Your task to perform on an android device: Go to Reddit.com Image 0: 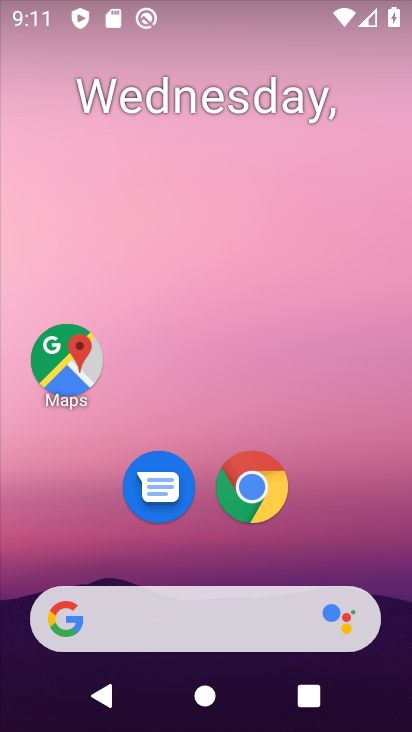
Step 0: click (244, 473)
Your task to perform on an android device: Go to Reddit.com Image 1: 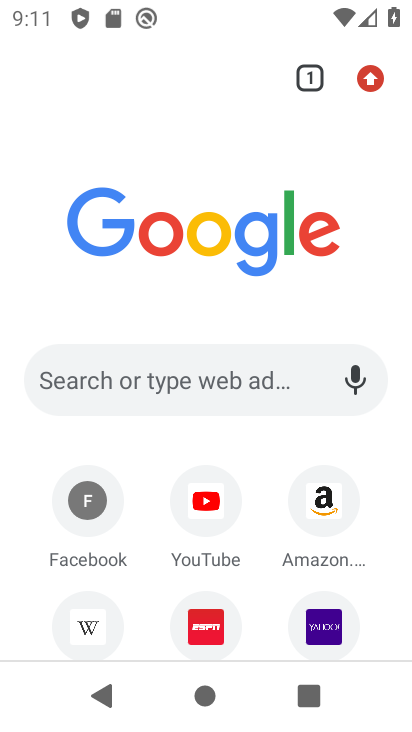
Step 1: drag from (344, 566) to (343, 292)
Your task to perform on an android device: Go to Reddit.com Image 2: 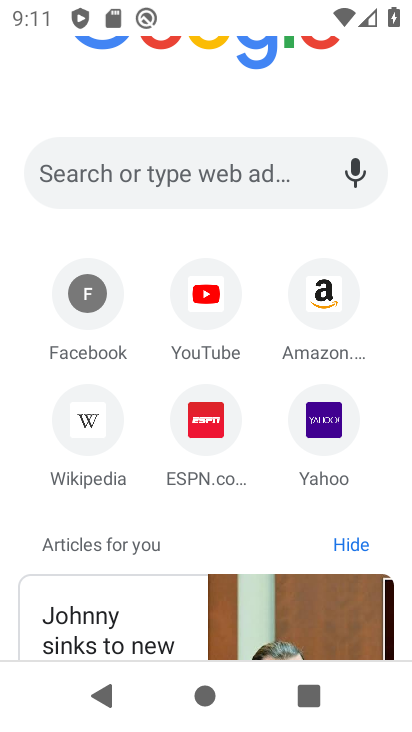
Step 2: click (250, 165)
Your task to perform on an android device: Go to Reddit.com Image 3: 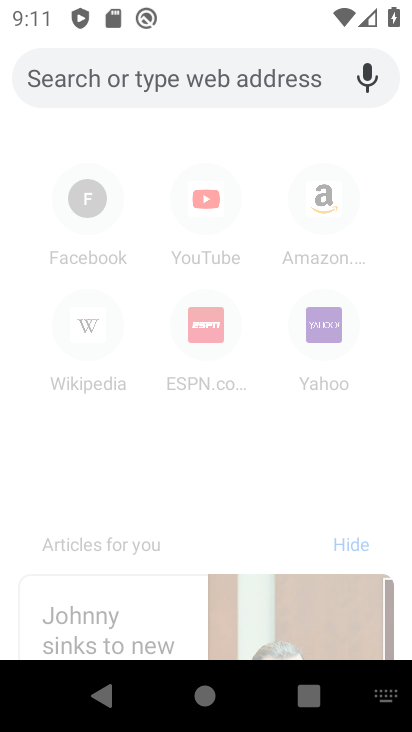
Step 3: type "Reddit.com"
Your task to perform on an android device: Go to Reddit.com Image 4: 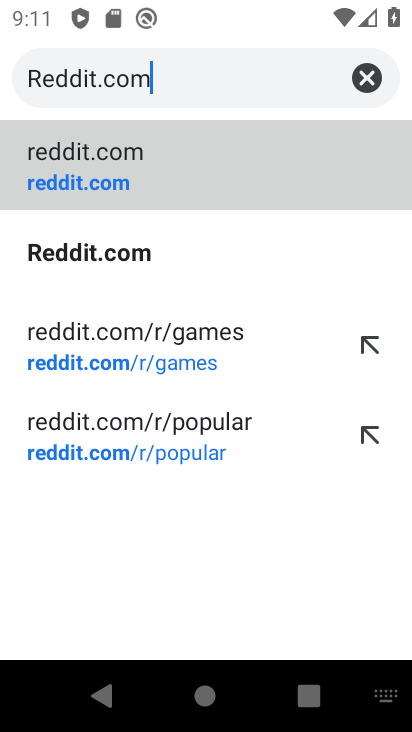
Step 4: click (50, 244)
Your task to perform on an android device: Go to Reddit.com Image 5: 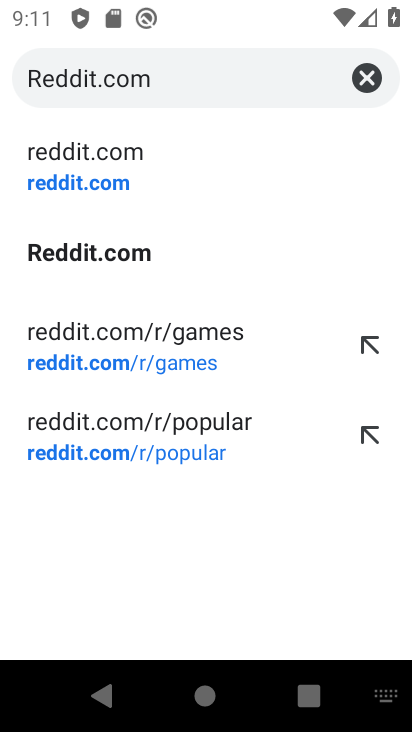
Step 5: click (100, 246)
Your task to perform on an android device: Go to Reddit.com Image 6: 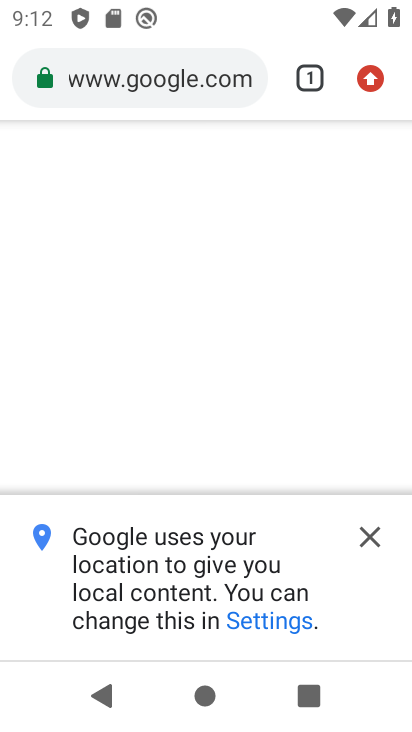
Step 6: click (375, 534)
Your task to perform on an android device: Go to Reddit.com Image 7: 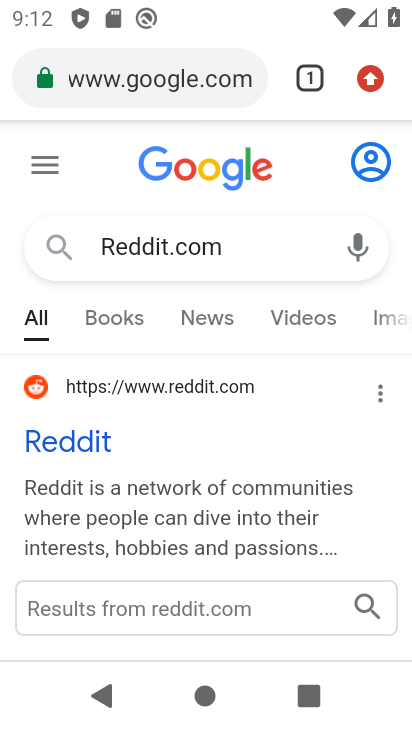
Step 7: task complete